Your task to perform on an android device: Open Google Maps Image 0: 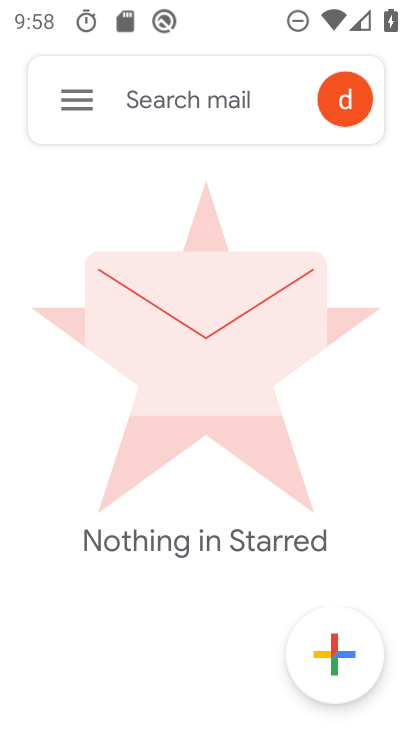
Step 0: press home button
Your task to perform on an android device: Open Google Maps Image 1: 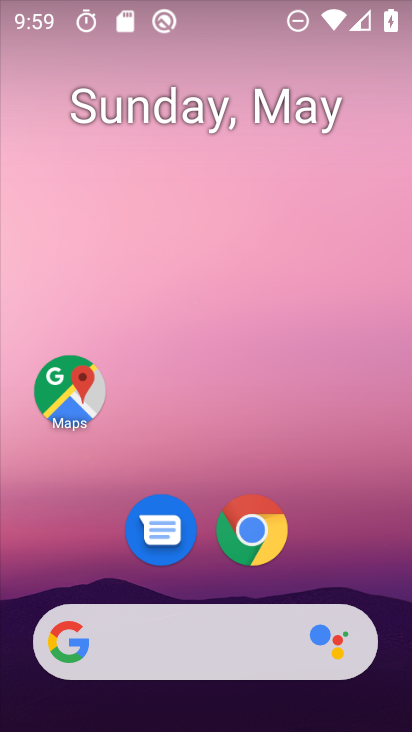
Step 1: drag from (304, 683) to (332, 220)
Your task to perform on an android device: Open Google Maps Image 2: 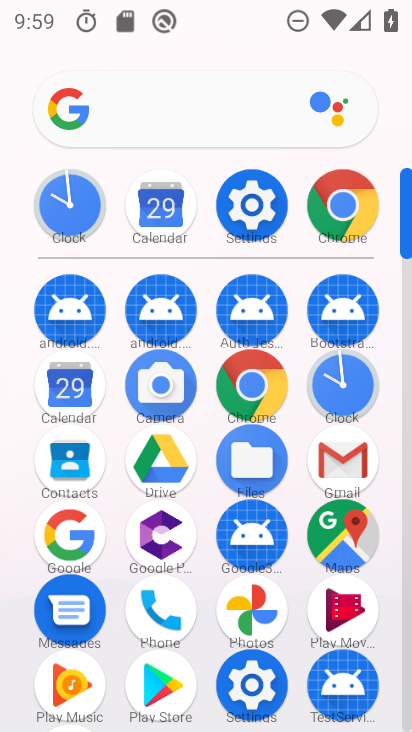
Step 2: click (331, 533)
Your task to perform on an android device: Open Google Maps Image 3: 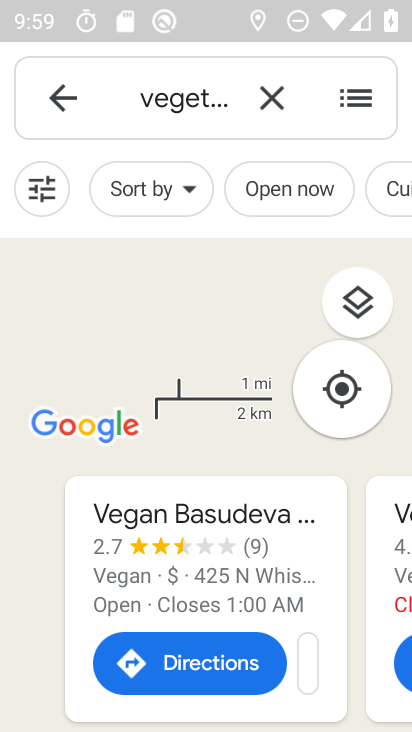
Step 3: click (50, 89)
Your task to perform on an android device: Open Google Maps Image 4: 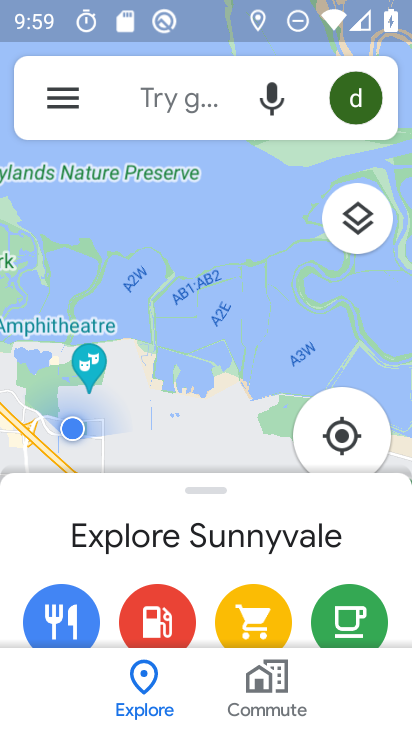
Step 4: task complete